Your task to perform on an android device: Search for a storage ottoman in the living room Image 0: 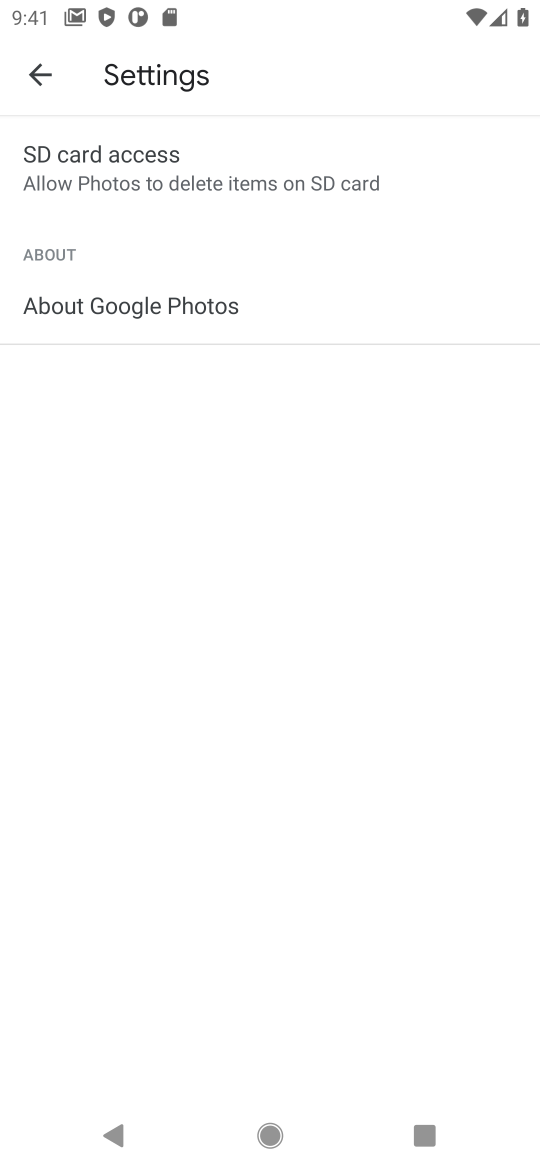
Step 0: press back button
Your task to perform on an android device: Search for a storage ottoman in the living room Image 1: 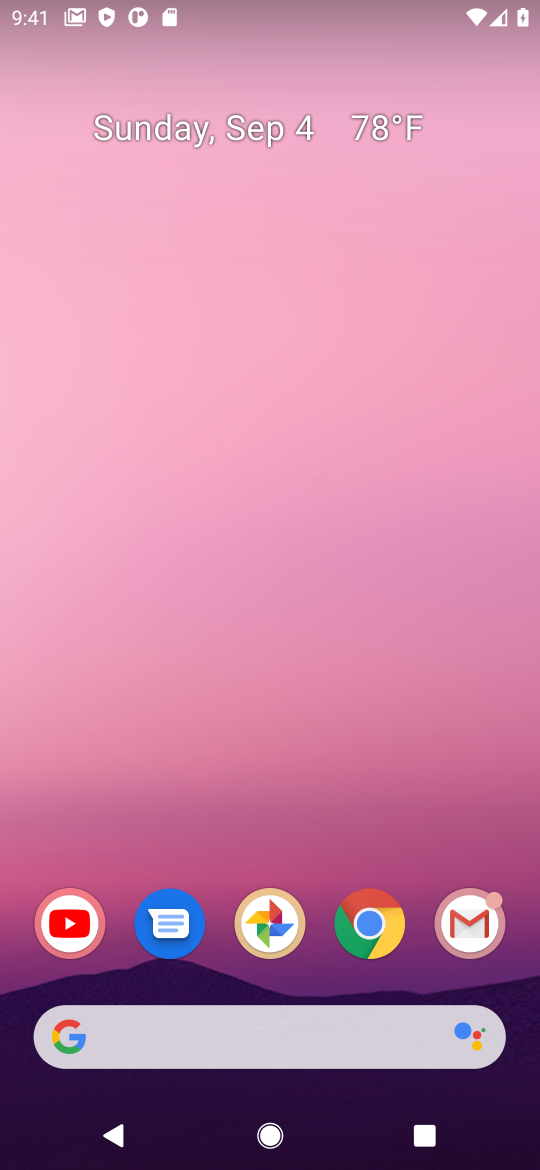
Step 1: task complete